Your task to perform on an android device: make emails show in primary in the gmail app Image 0: 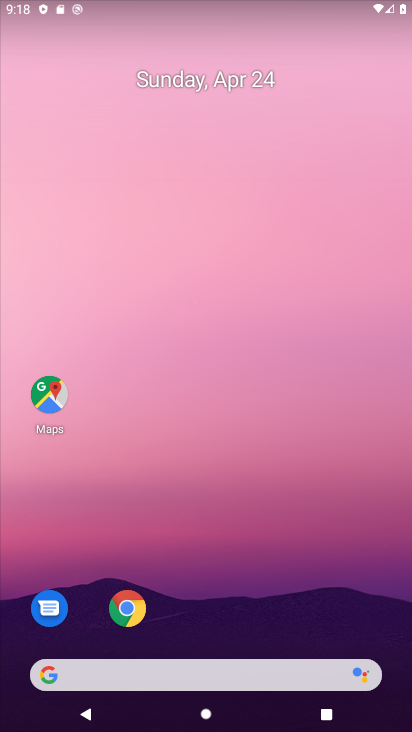
Step 0: drag from (392, 114) to (409, 10)
Your task to perform on an android device: make emails show in primary in the gmail app Image 1: 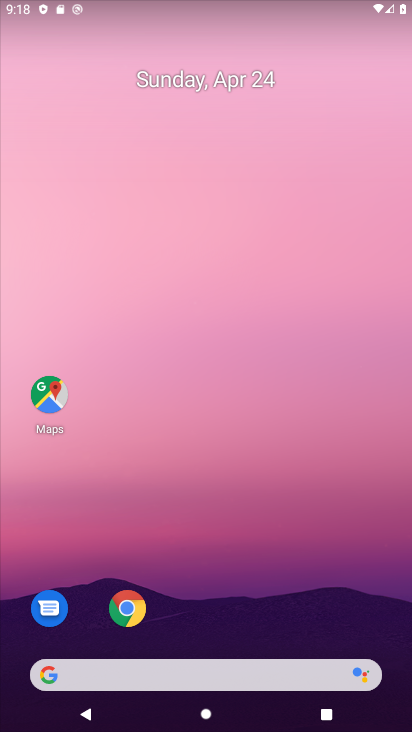
Step 1: drag from (325, 531) to (287, 78)
Your task to perform on an android device: make emails show in primary in the gmail app Image 2: 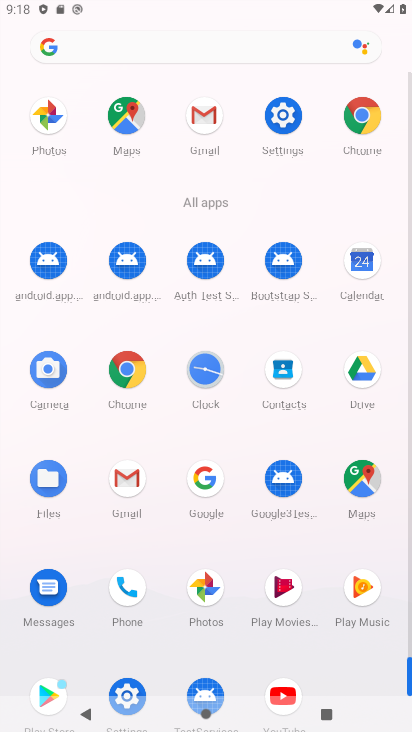
Step 2: click (199, 125)
Your task to perform on an android device: make emails show in primary in the gmail app Image 3: 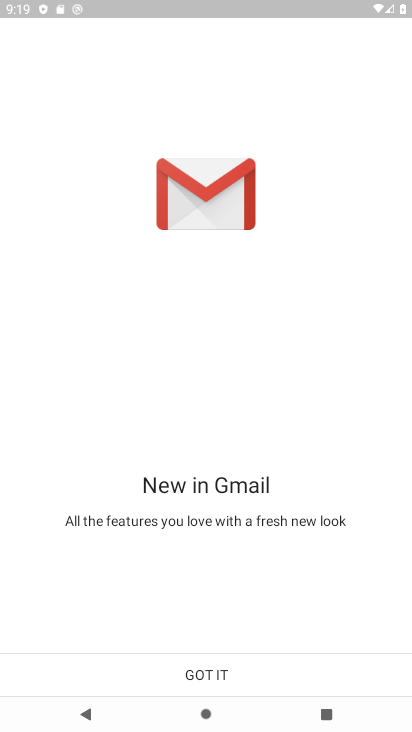
Step 3: click (205, 670)
Your task to perform on an android device: make emails show in primary in the gmail app Image 4: 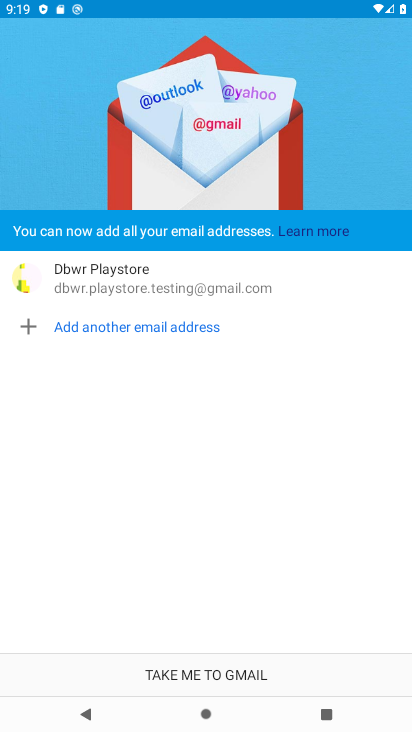
Step 4: click (169, 664)
Your task to perform on an android device: make emails show in primary in the gmail app Image 5: 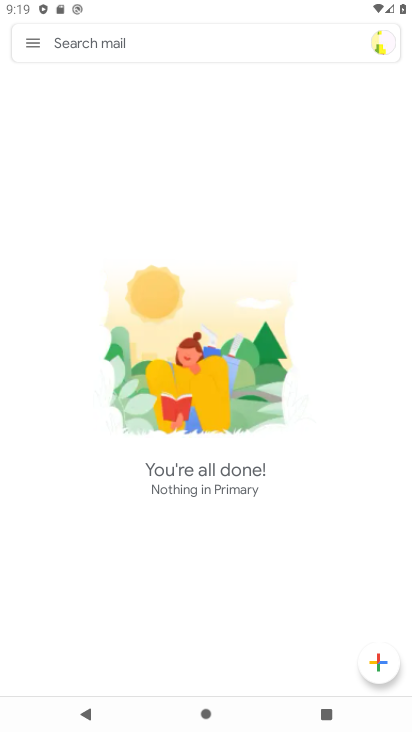
Step 5: click (34, 45)
Your task to perform on an android device: make emails show in primary in the gmail app Image 6: 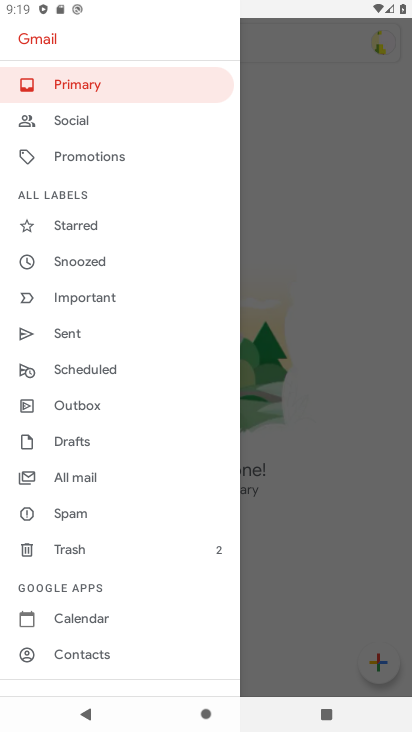
Step 6: drag from (104, 581) to (94, 127)
Your task to perform on an android device: make emails show in primary in the gmail app Image 7: 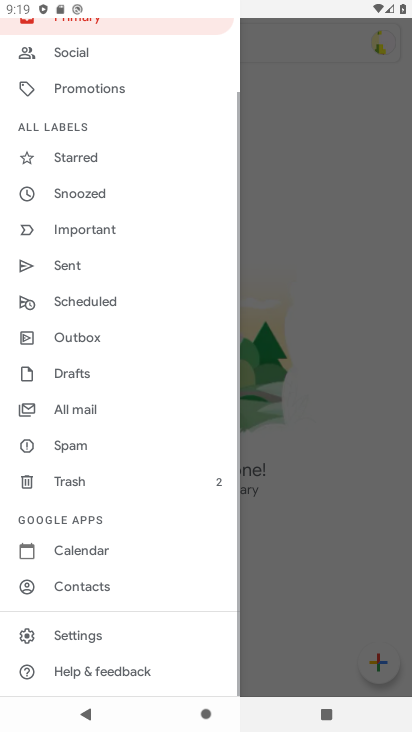
Step 7: drag from (138, 651) to (155, 202)
Your task to perform on an android device: make emails show in primary in the gmail app Image 8: 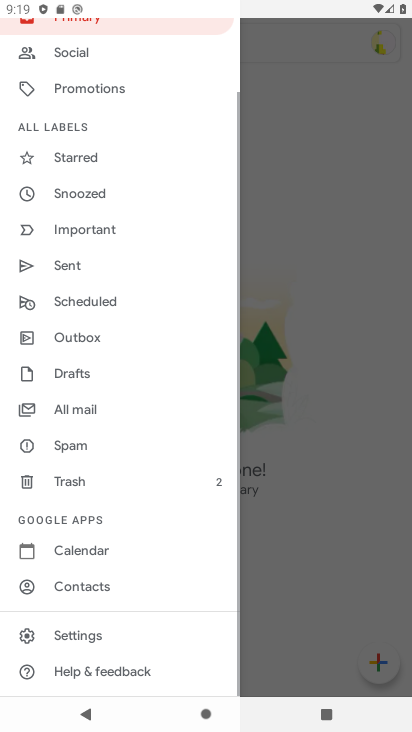
Step 8: click (71, 619)
Your task to perform on an android device: make emails show in primary in the gmail app Image 9: 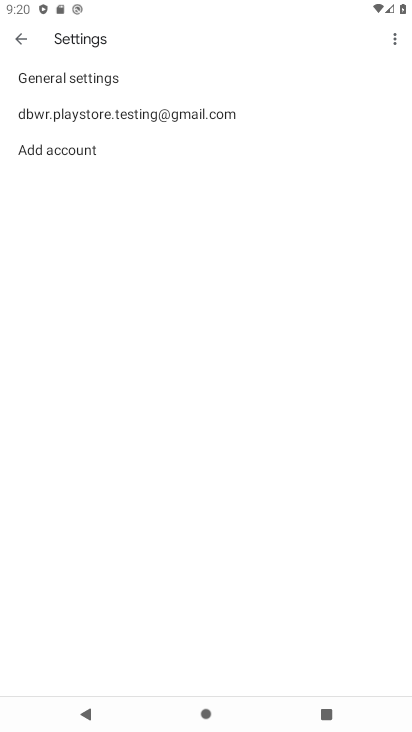
Step 9: click (165, 112)
Your task to perform on an android device: make emails show in primary in the gmail app Image 10: 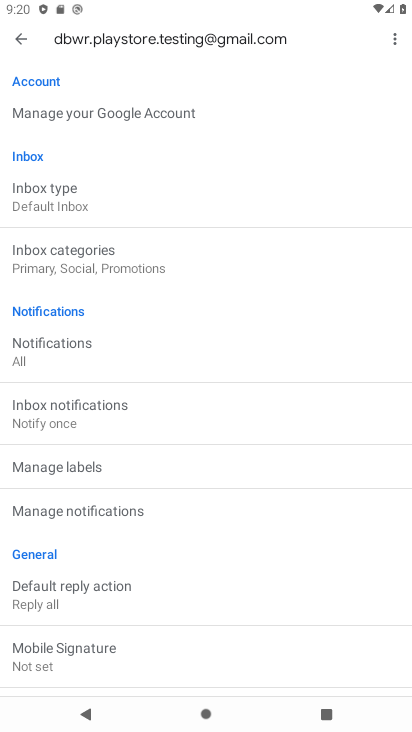
Step 10: task complete